Your task to perform on an android device: Open maps Image 0: 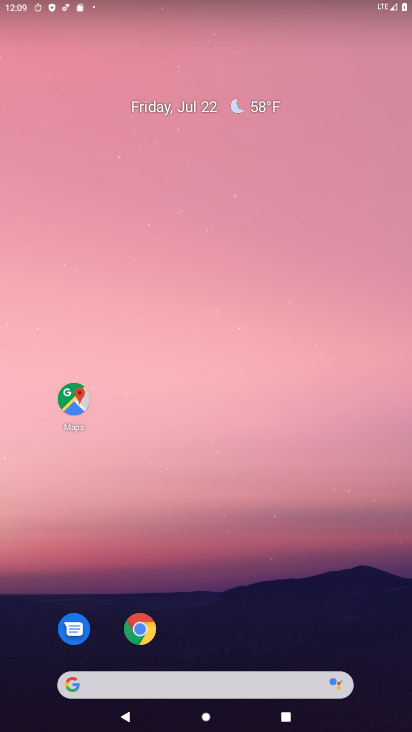
Step 0: drag from (363, 616) to (342, 190)
Your task to perform on an android device: Open maps Image 1: 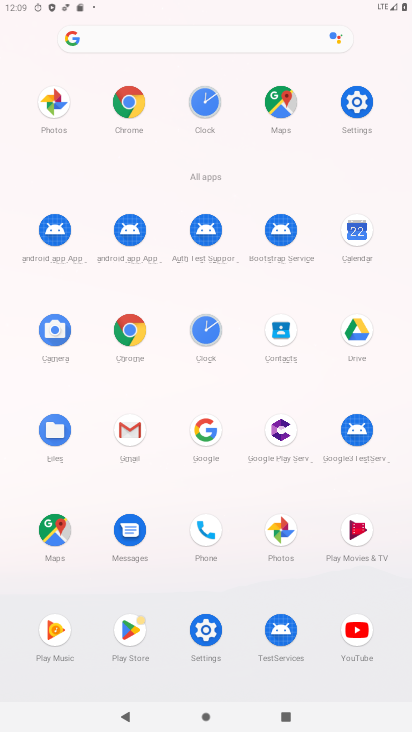
Step 1: click (280, 102)
Your task to perform on an android device: Open maps Image 2: 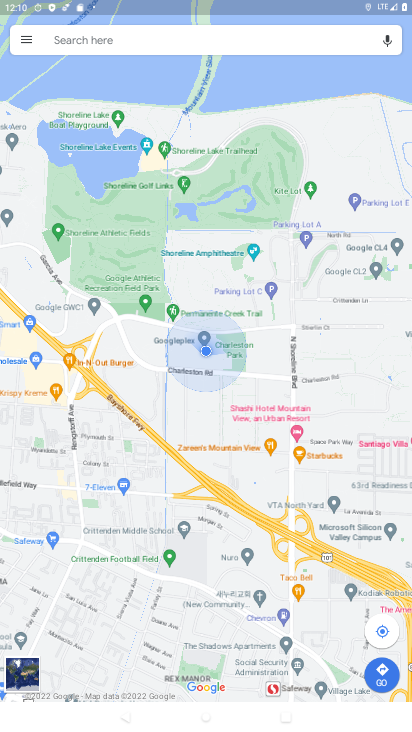
Step 2: task complete